Your task to perform on an android device: Go to Google Image 0: 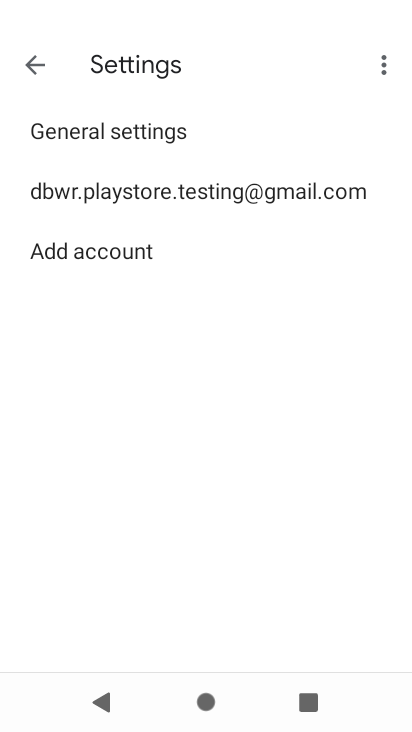
Step 0: press back button
Your task to perform on an android device: Go to Google Image 1: 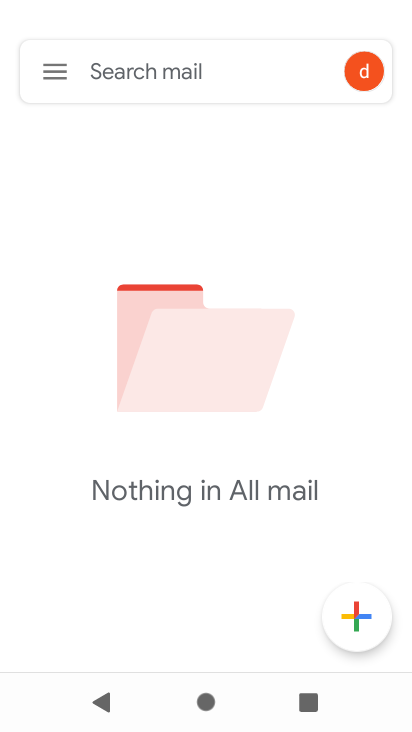
Step 1: press back button
Your task to perform on an android device: Go to Google Image 2: 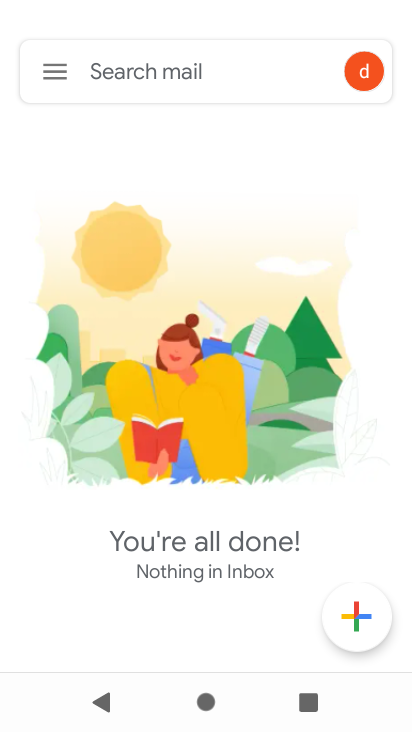
Step 2: press back button
Your task to perform on an android device: Go to Google Image 3: 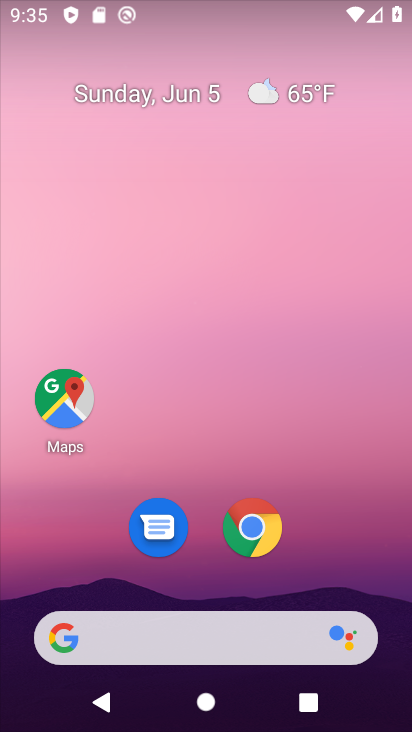
Step 3: drag from (211, 541) to (221, 0)
Your task to perform on an android device: Go to Google Image 4: 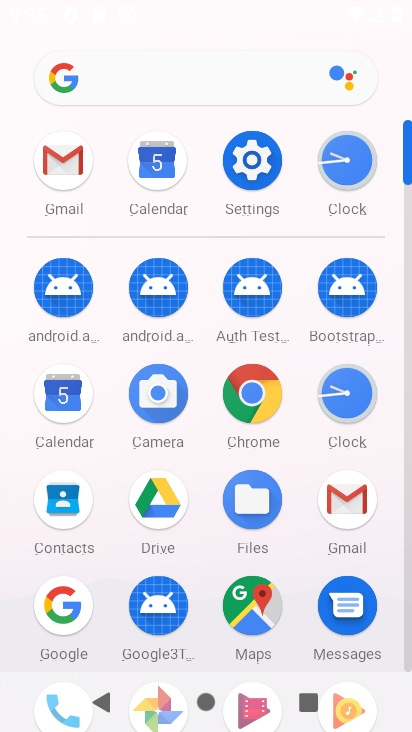
Step 4: click (55, 617)
Your task to perform on an android device: Go to Google Image 5: 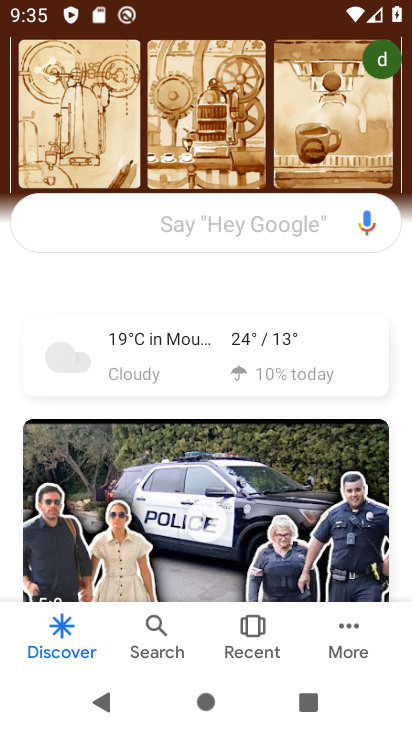
Step 5: task complete